Your task to perform on an android device: turn vacation reply on in the gmail app Image 0: 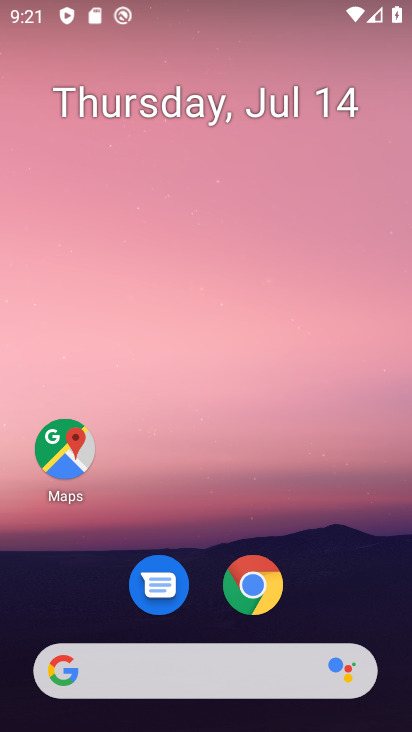
Step 0: drag from (218, 629) to (144, 60)
Your task to perform on an android device: turn vacation reply on in the gmail app Image 1: 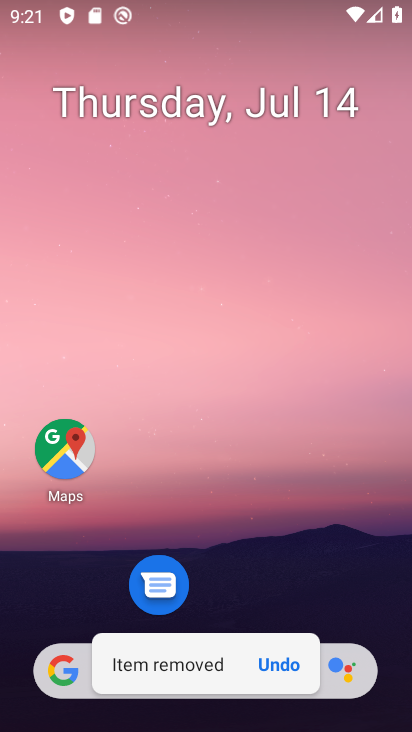
Step 1: drag from (234, 583) to (364, 28)
Your task to perform on an android device: turn vacation reply on in the gmail app Image 2: 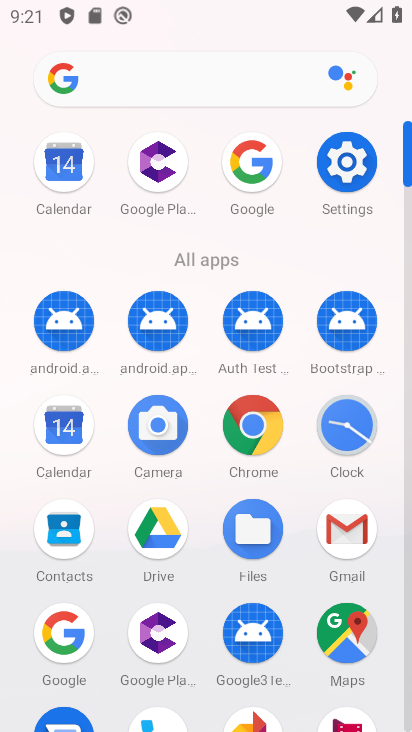
Step 2: click (343, 540)
Your task to perform on an android device: turn vacation reply on in the gmail app Image 3: 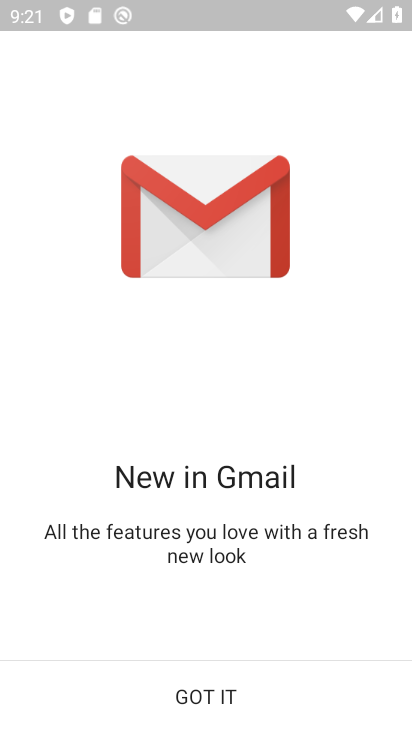
Step 3: click (195, 690)
Your task to perform on an android device: turn vacation reply on in the gmail app Image 4: 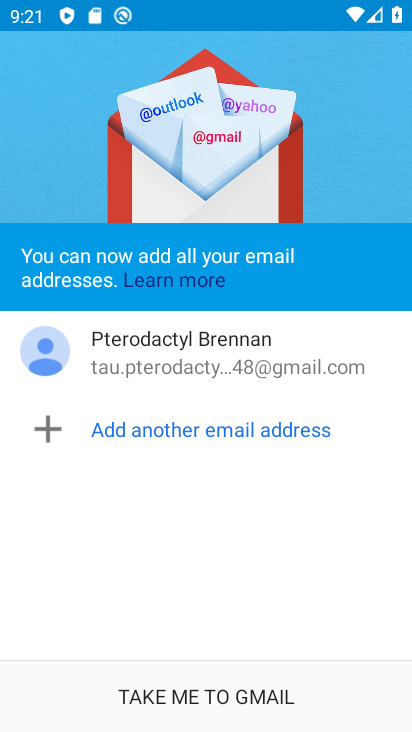
Step 4: click (195, 690)
Your task to perform on an android device: turn vacation reply on in the gmail app Image 5: 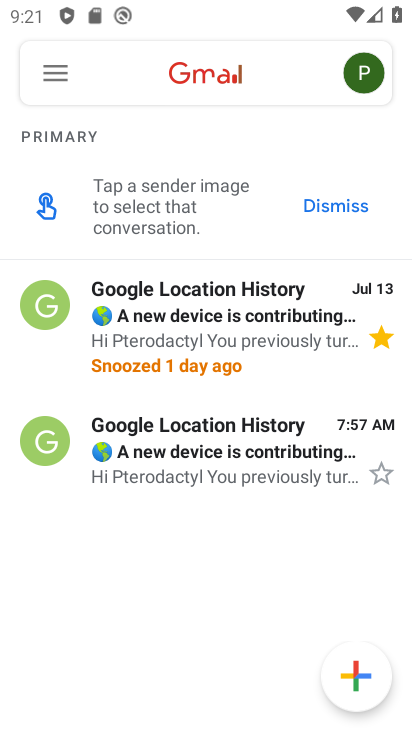
Step 5: click (61, 71)
Your task to perform on an android device: turn vacation reply on in the gmail app Image 6: 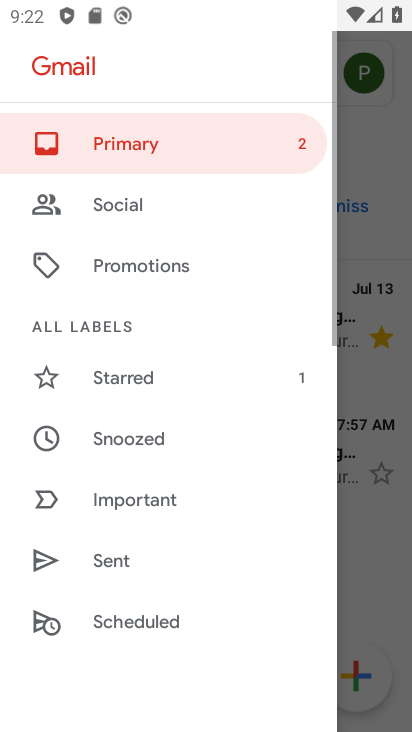
Step 6: drag from (190, 603) to (83, 115)
Your task to perform on an android device: turn vacation reply on in the gmail app Image 7: 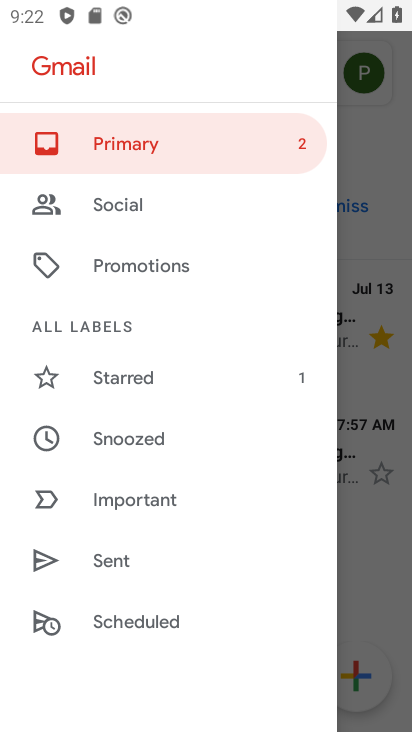
Step 7: drag from (152, 451) to (280, 10)
Your task to perform on an android device: turn vacation reply on in the gmail app Image 8: 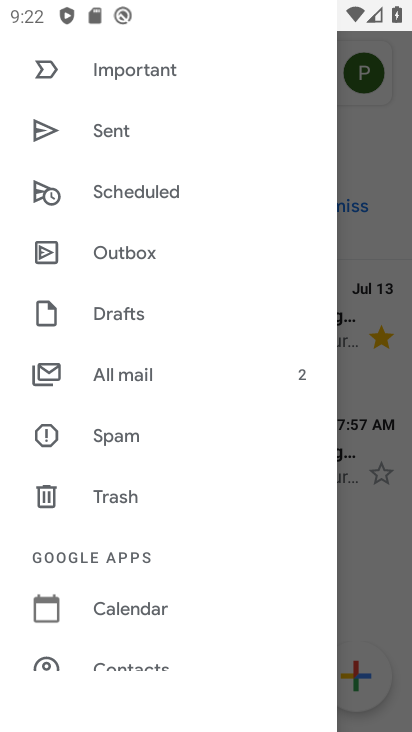
Step 8: drag from (203, 611) to (107, 17)
Your task to perform on an android device: turn vacation reply on in the gmail app Image 9: 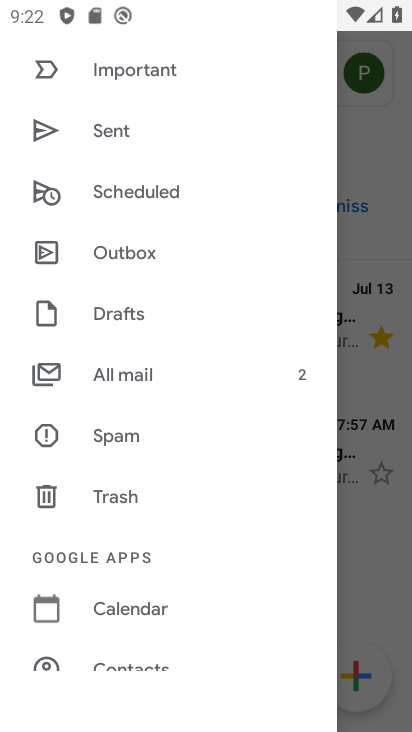
Step 9: drag from (159, 479) to (122, 0)
Your task to perform on an android device: turn vacation reply on in the gmail app Image 10: 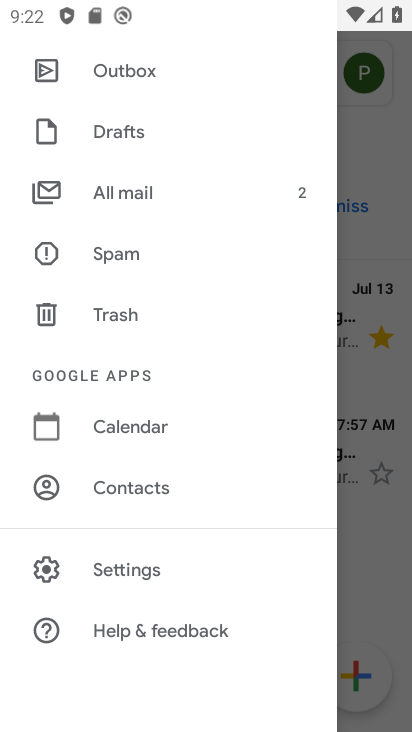
Step 10: click (103, 576)
Your task to perform on an android device: turn vacation reply on in the gmail app Image 11: 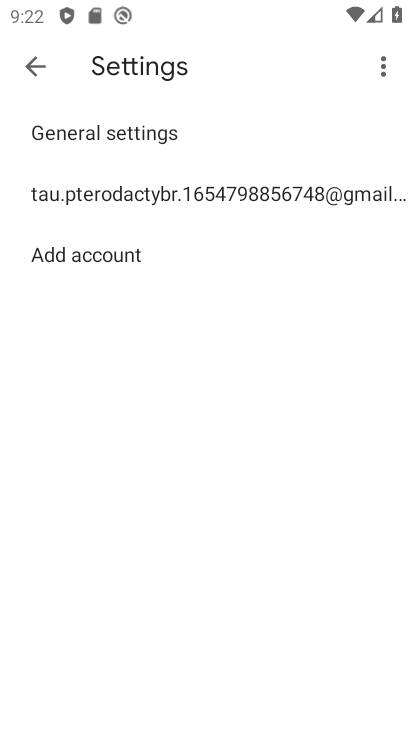
Step 11: click (108, 186)
Your task to perform on an android device: turn vacation reply on in the gmail app Image 12: 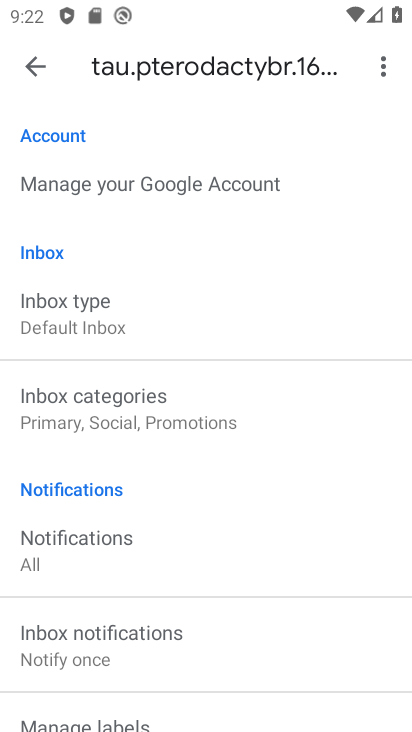
Step 12: drag from (197, 476) to (165, 109)
Your task to perform on an android device: turn vacation reply on in the gmail app Image 13: 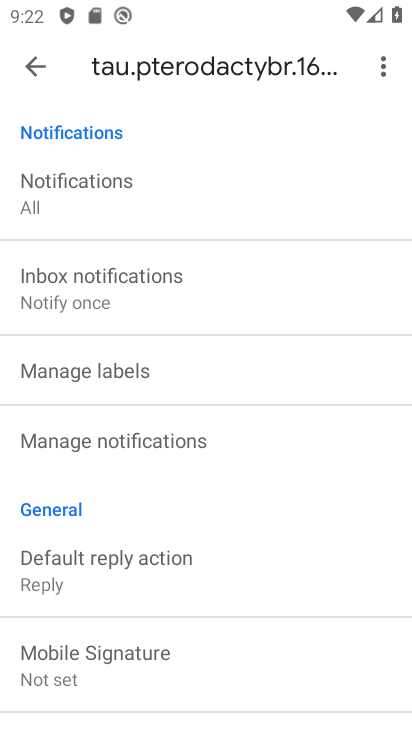
Step 13: drag from (214, 438) to (183, 10)
Your task to perform on an android device: turn vacation reply on in the gmail app Image 14: 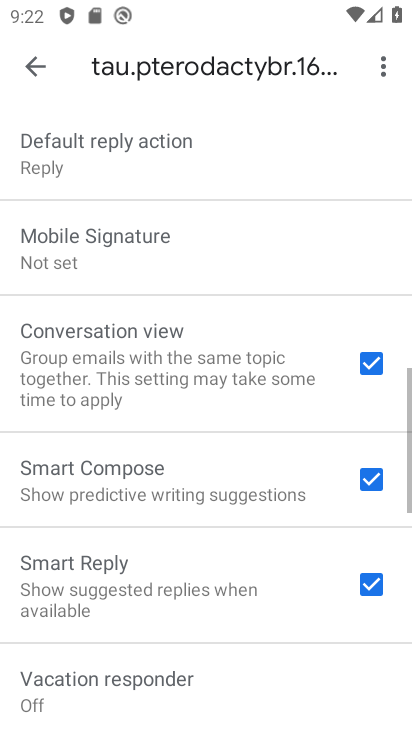
Step 14: click (52, 661)
Your task to perform on an android device: turn vacation reply on in the gmail app Image 15: 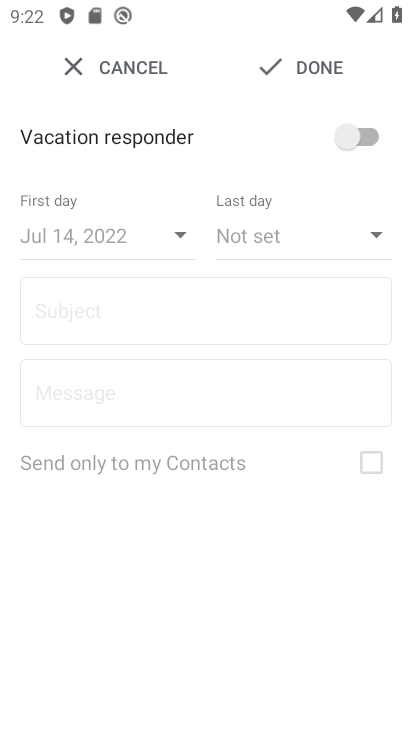
Step 15: click (362, 127)
Your task to perform on an android device: turn vacation reply on in the gmail app Image 16: 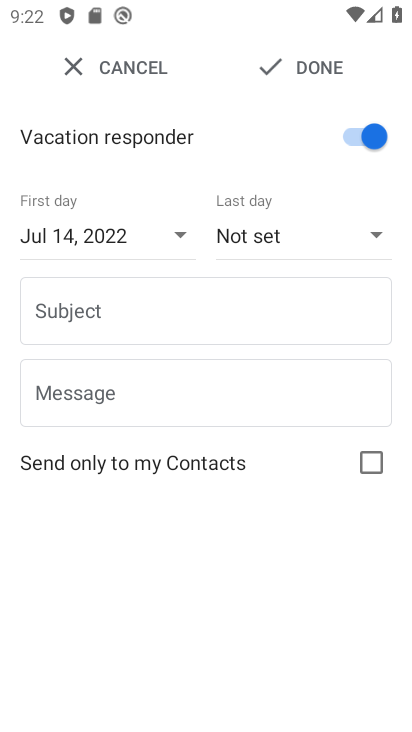
Step 16: task complete